Your task to perform on an android device: open app "eBay: The shopping marketplace" (install if not already installed) Image 0: 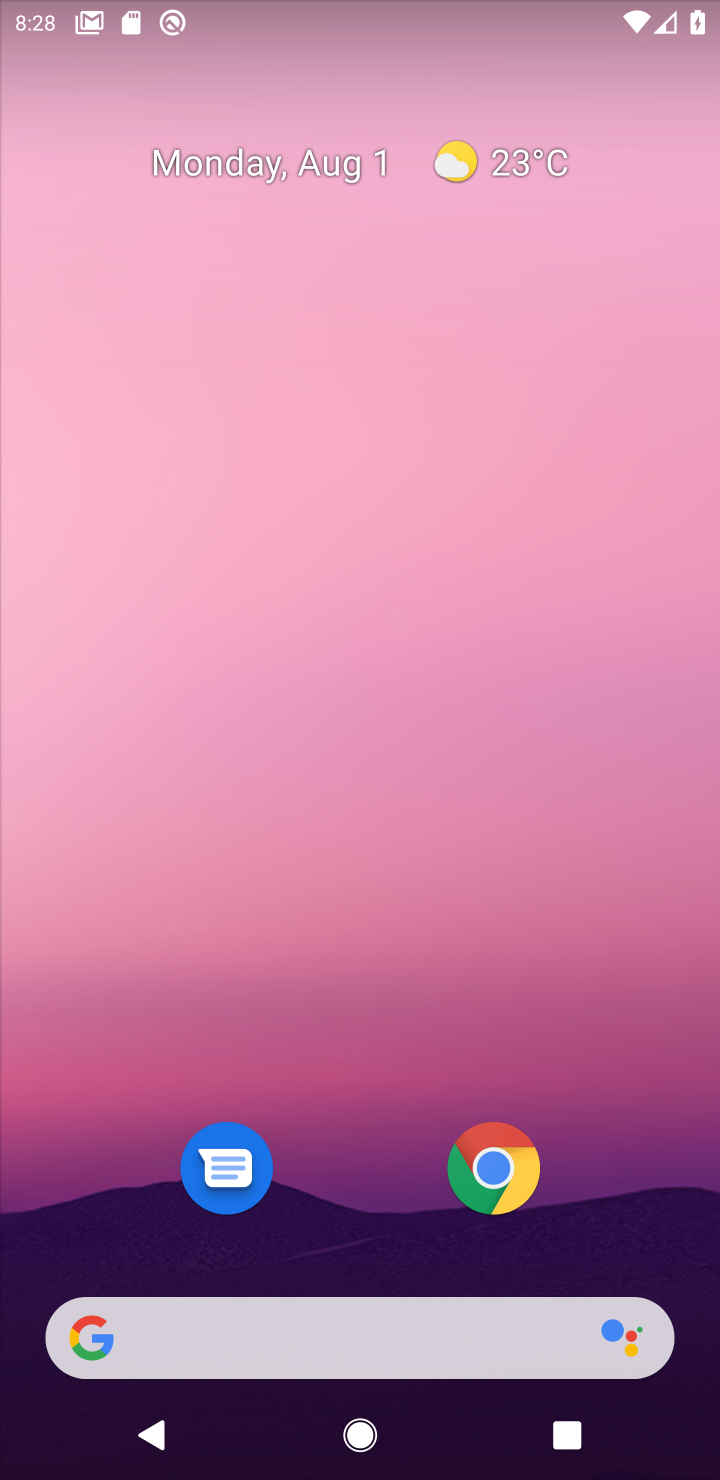
Step 0: click (370, 82)
Your task to perform on an android device: open app "eBay: The shopping marketplace" (install if not already installed) Image 1: 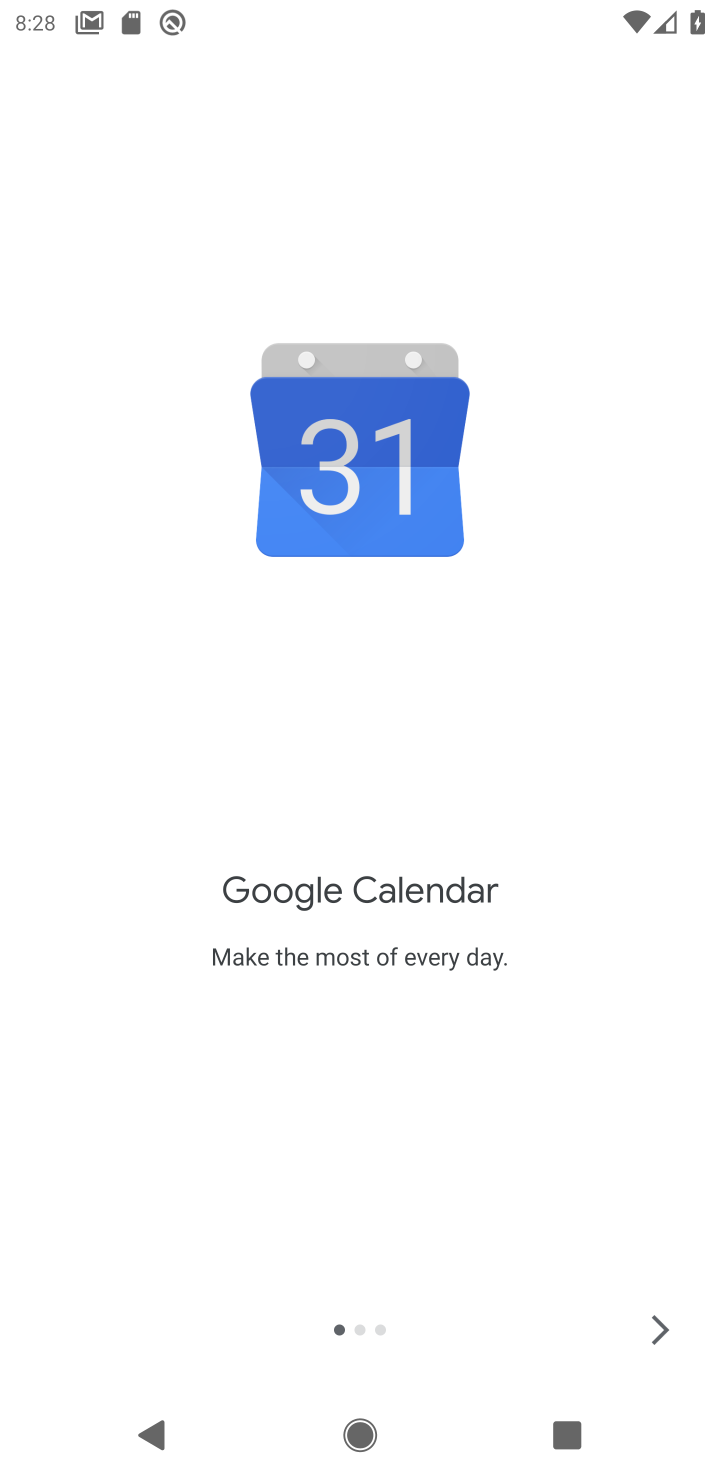
Step 1: press home button
Your task to perform on an android device: open app "eBay: The shopping marketplace" (install if not already installed) Image 2: 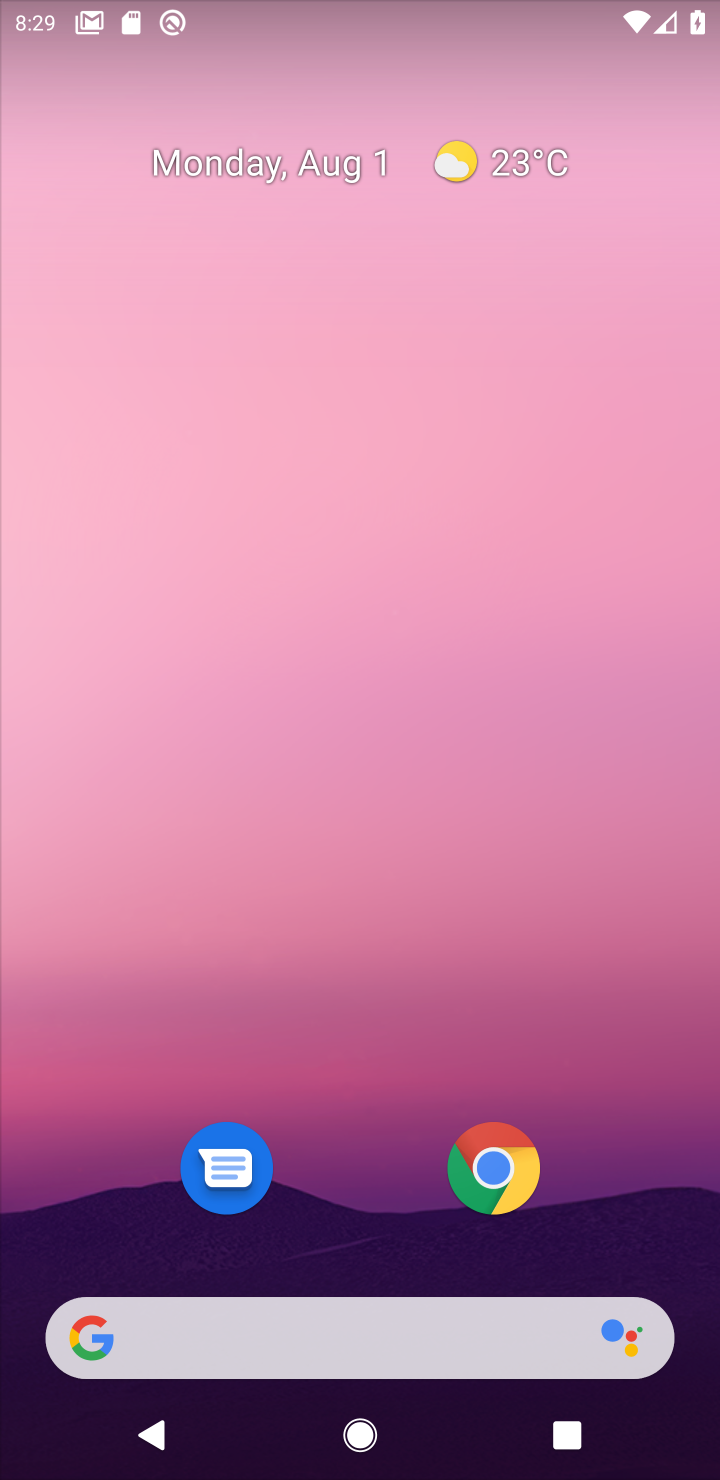
Step 2: drag from (332, 862) to (233, 1)
Your task to perform on an android device: open app "eBay: The shopping marketplace" (install if not already installed) Image 3: 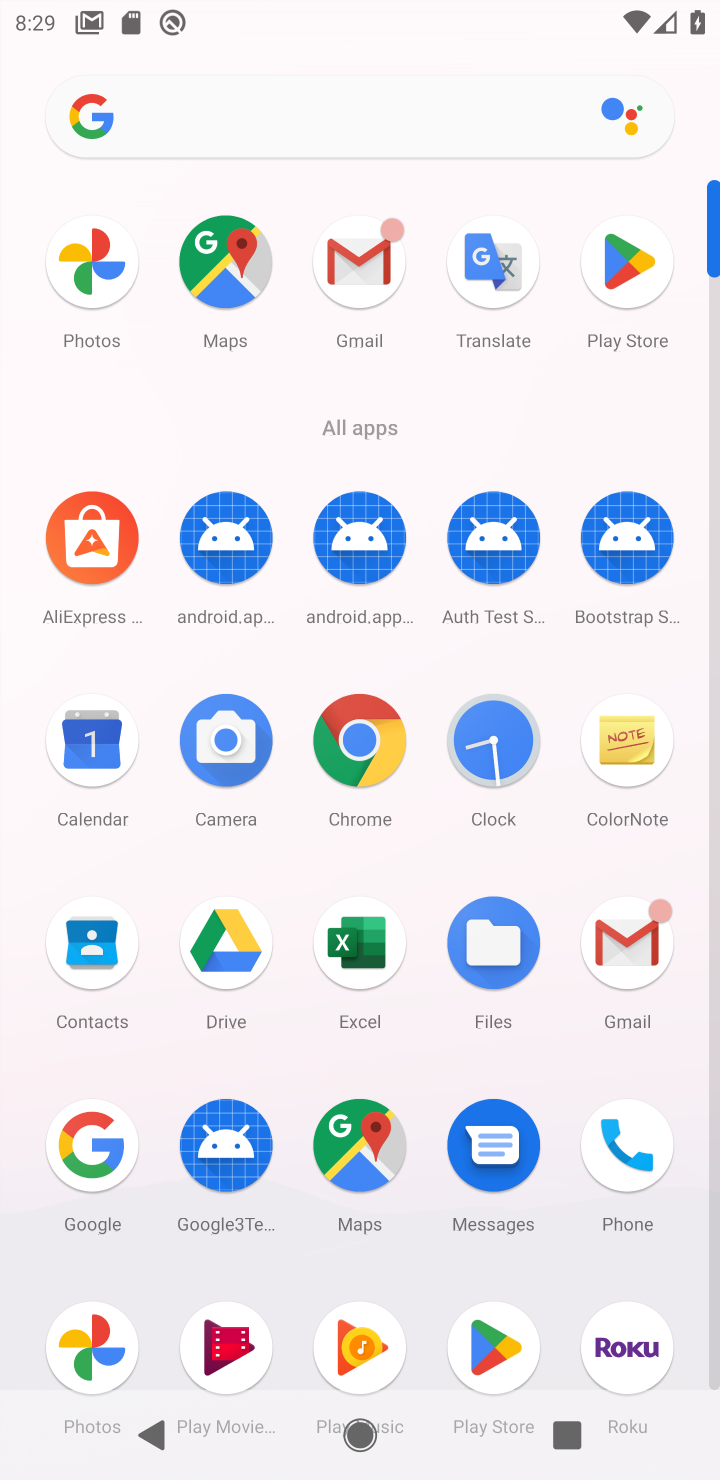
Step 3: click (616, 318)
Your task to perform on an android device: open app "eBay: The shopping marketplace" (install if not already installed) Image 4: 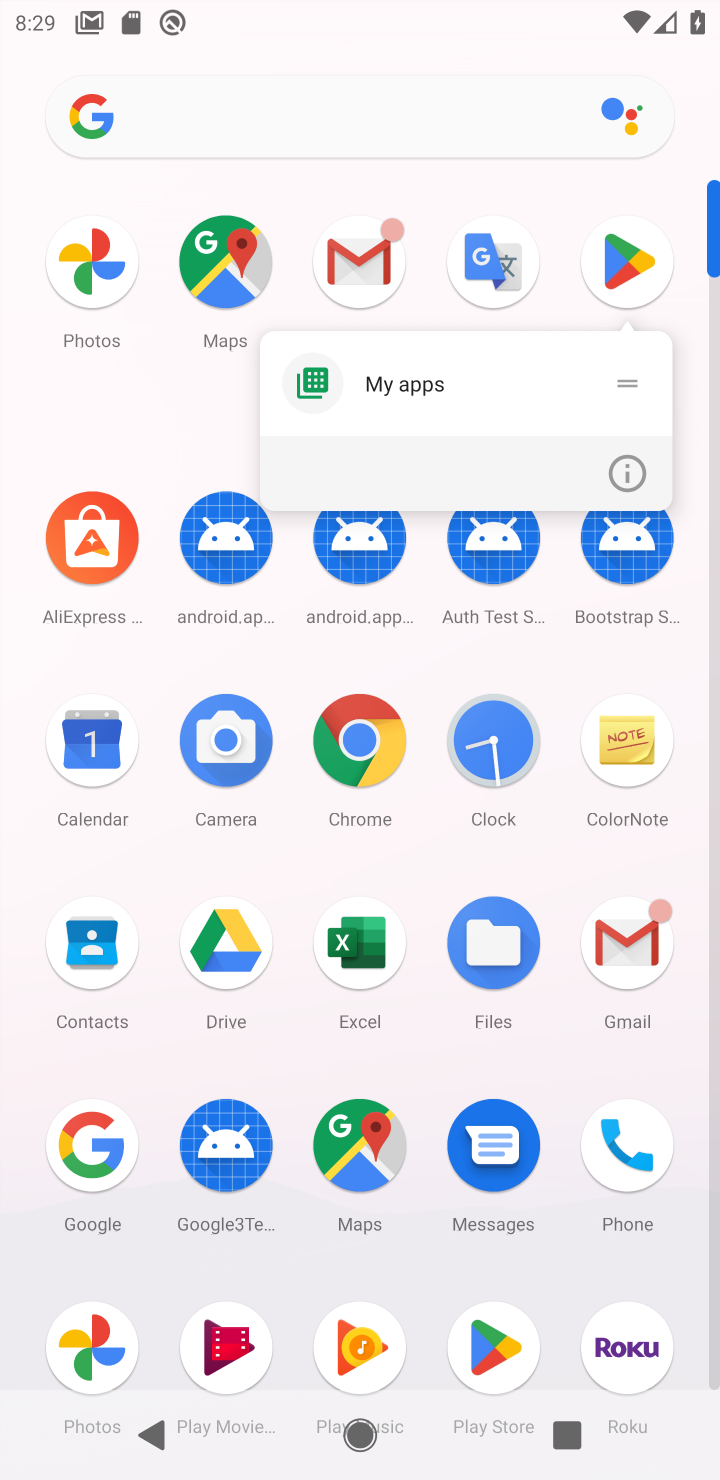
Step 4: click (624, 271)
Your task to perform on an android device: open app "eBay: The shopping marketplace" (install if not already installed) Image 5: 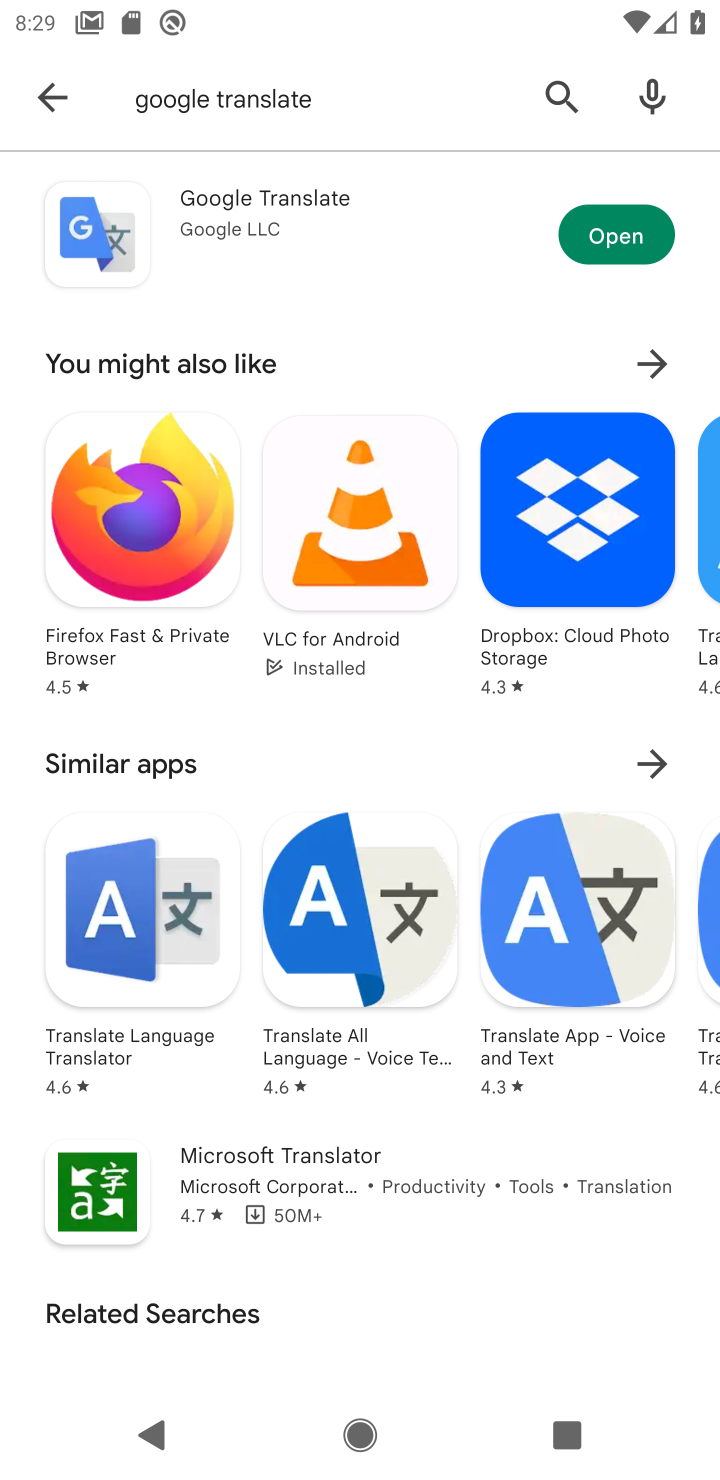
Step 5: click (307, 101)
Your task to perform on an android device: open app "eBay: The shopping marketplace" (install if not already installed) Image 6: 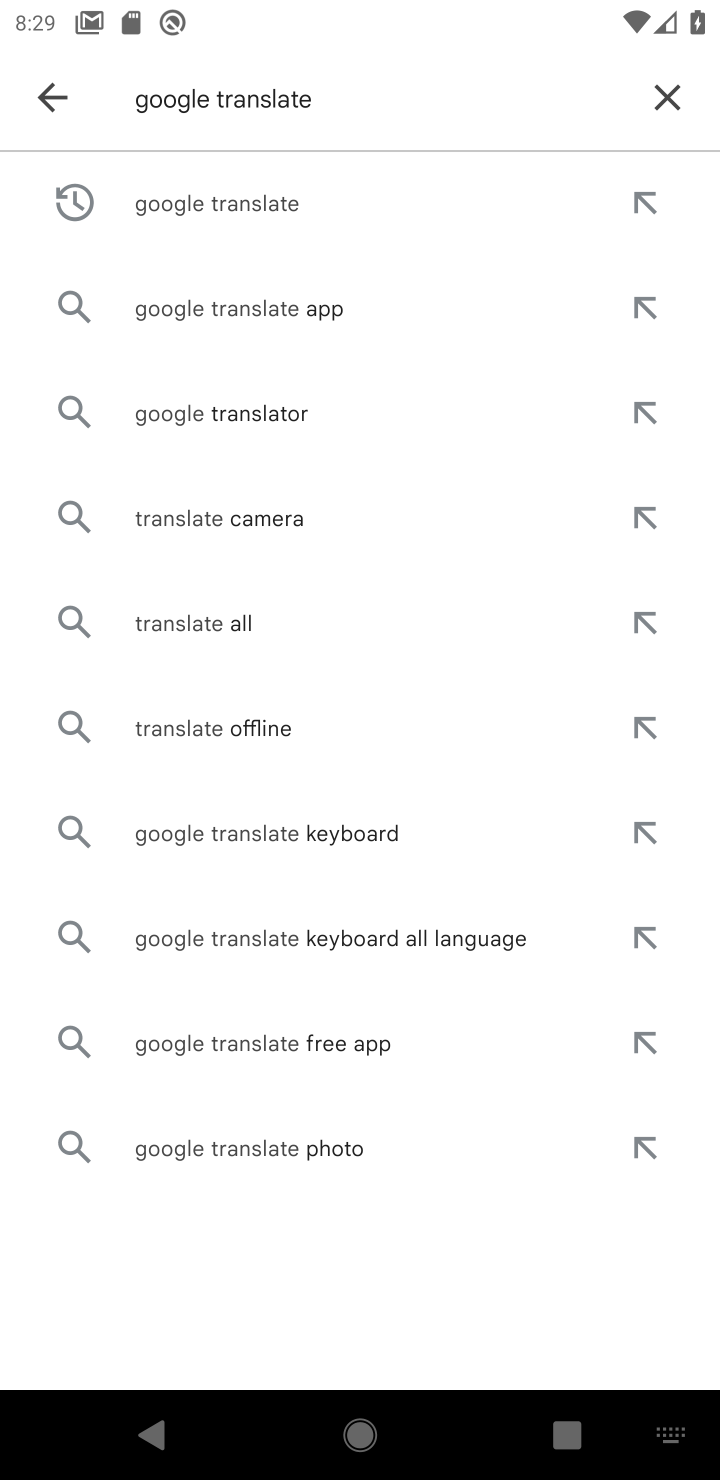
Step 6: click (673, 90)
Your task to perform on an android device: open app "eBay: The shopping marketplace" (install if not already installed) Image 7: 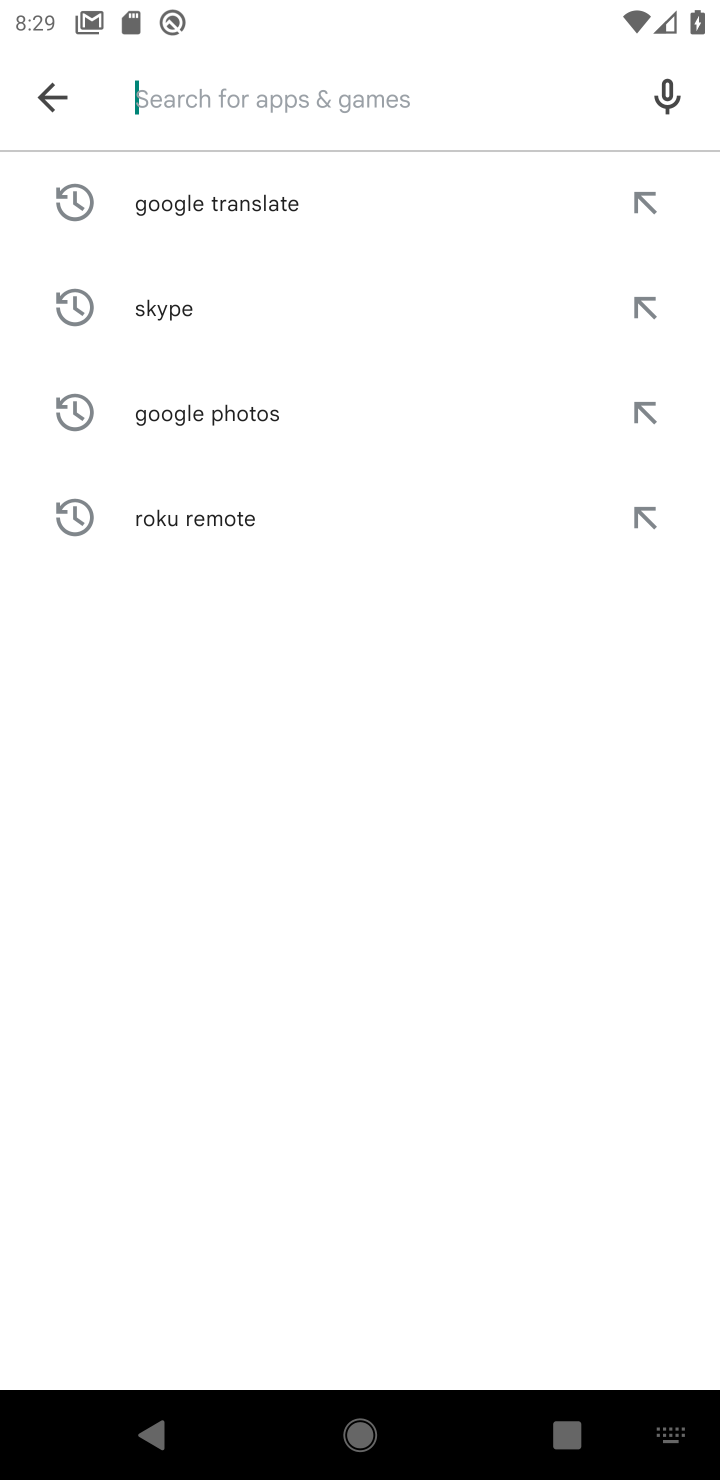
Step 7: type "EBay"
Your task to perform on an android device: open app "eBay: The shopping marketplace" (install if not already installed) Image 8: 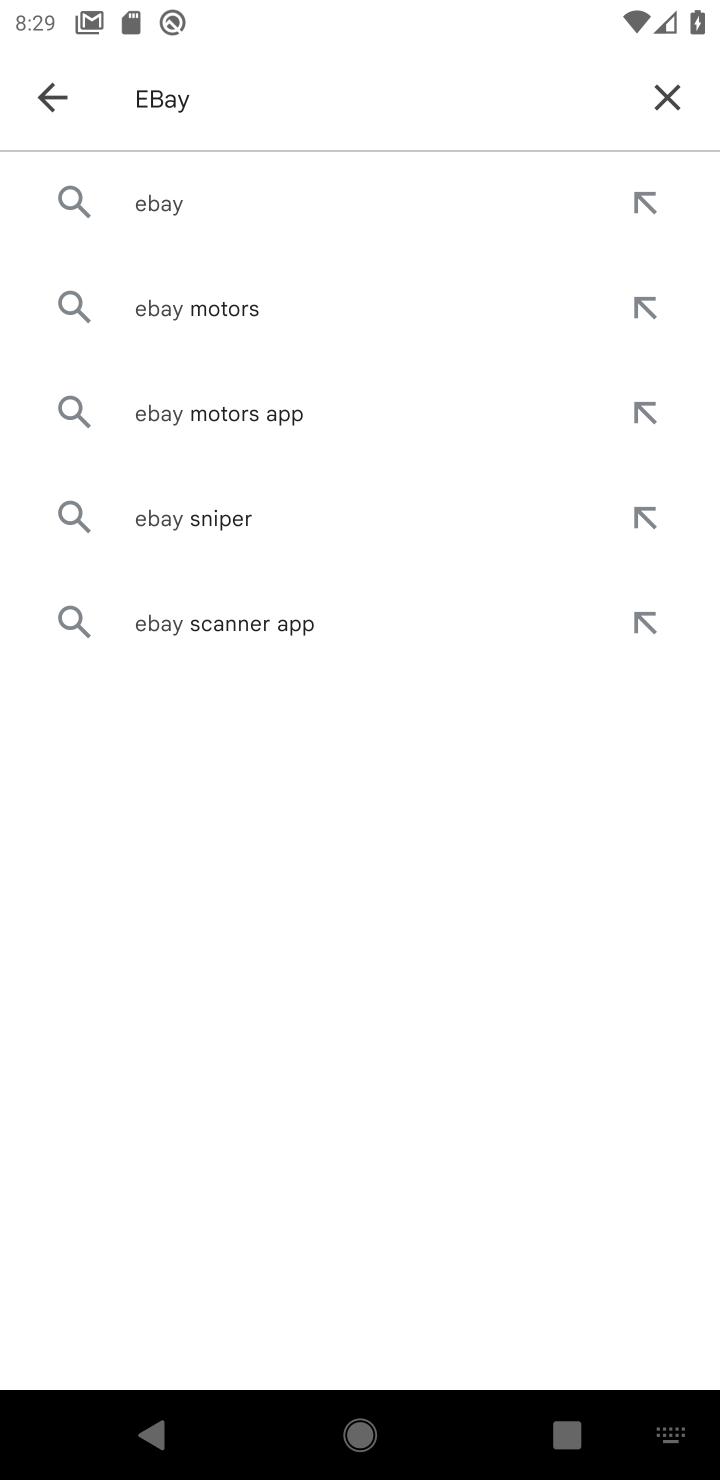
Step 8: click (201, 175)
Your task to perform on an android device: open app "eBay: The shopping marketplace" (install if not already installed) Image 9: 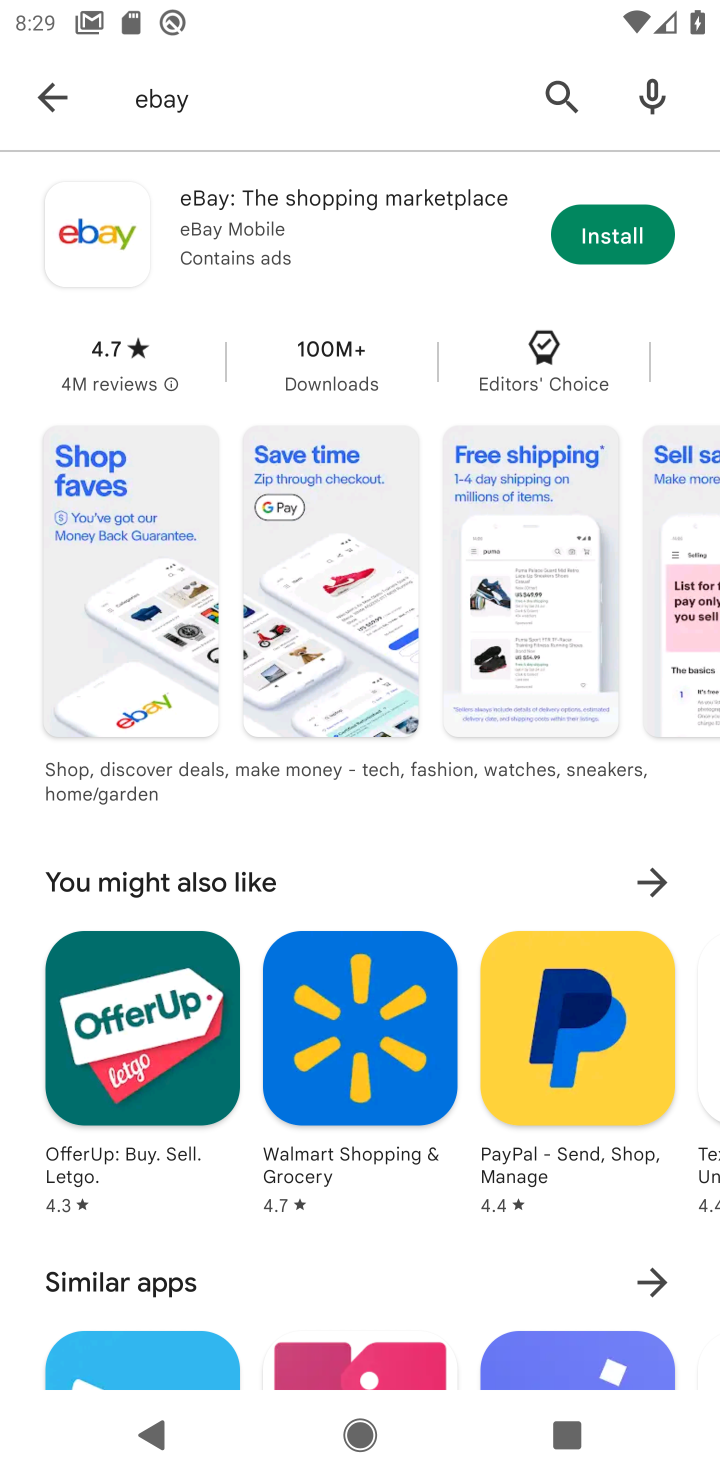
Step 9: click (644, 234)
Your task to perform on an android device: open app "eBay: The shopping marketplace" (install if not already installed) Image 10: 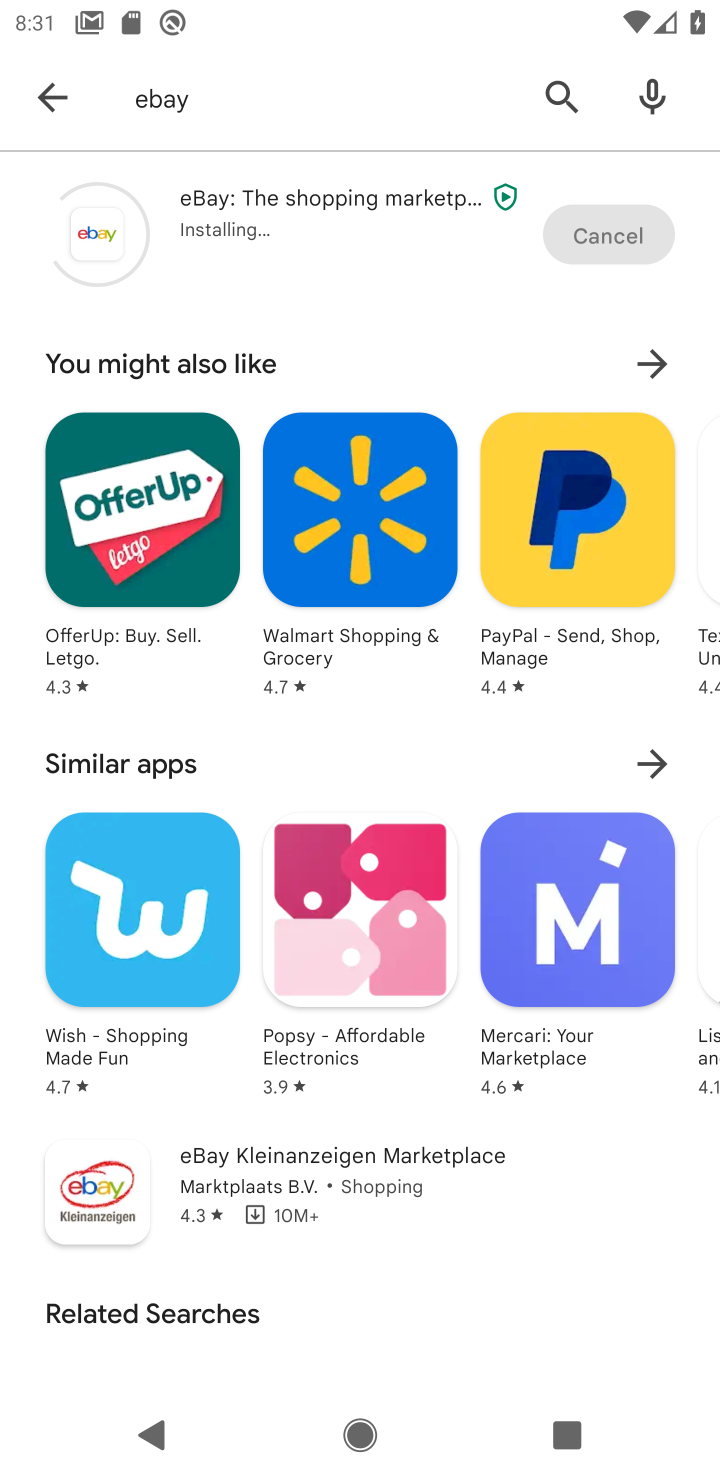
Step 10: click (491, 1013)
Your task to perform on an android device: open app "eBay: The shopping marketplace" (install if not already installed) Image 11: 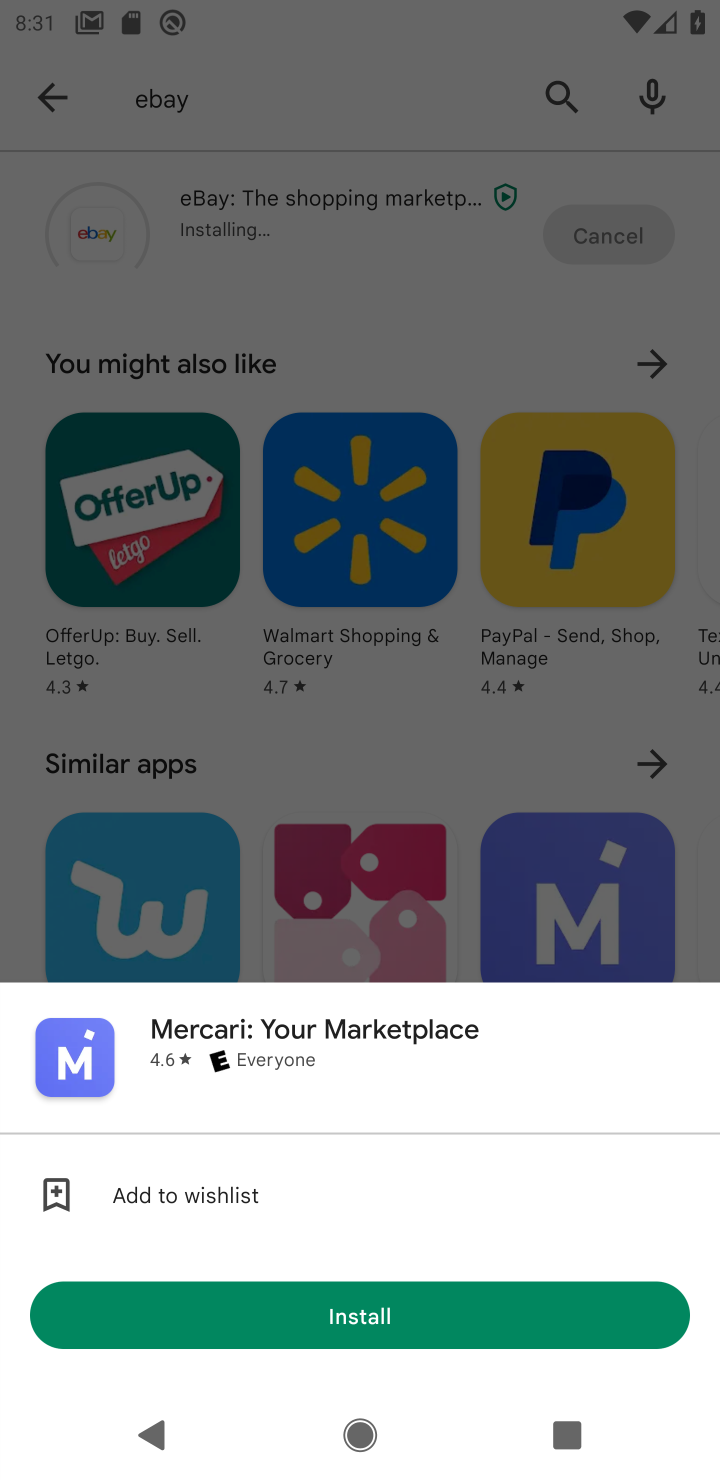
Step 11: click (436, 320)
Your task to perform on an android device: open app "eBay: The shopping marketplace" (install if not already installed) Image 12: 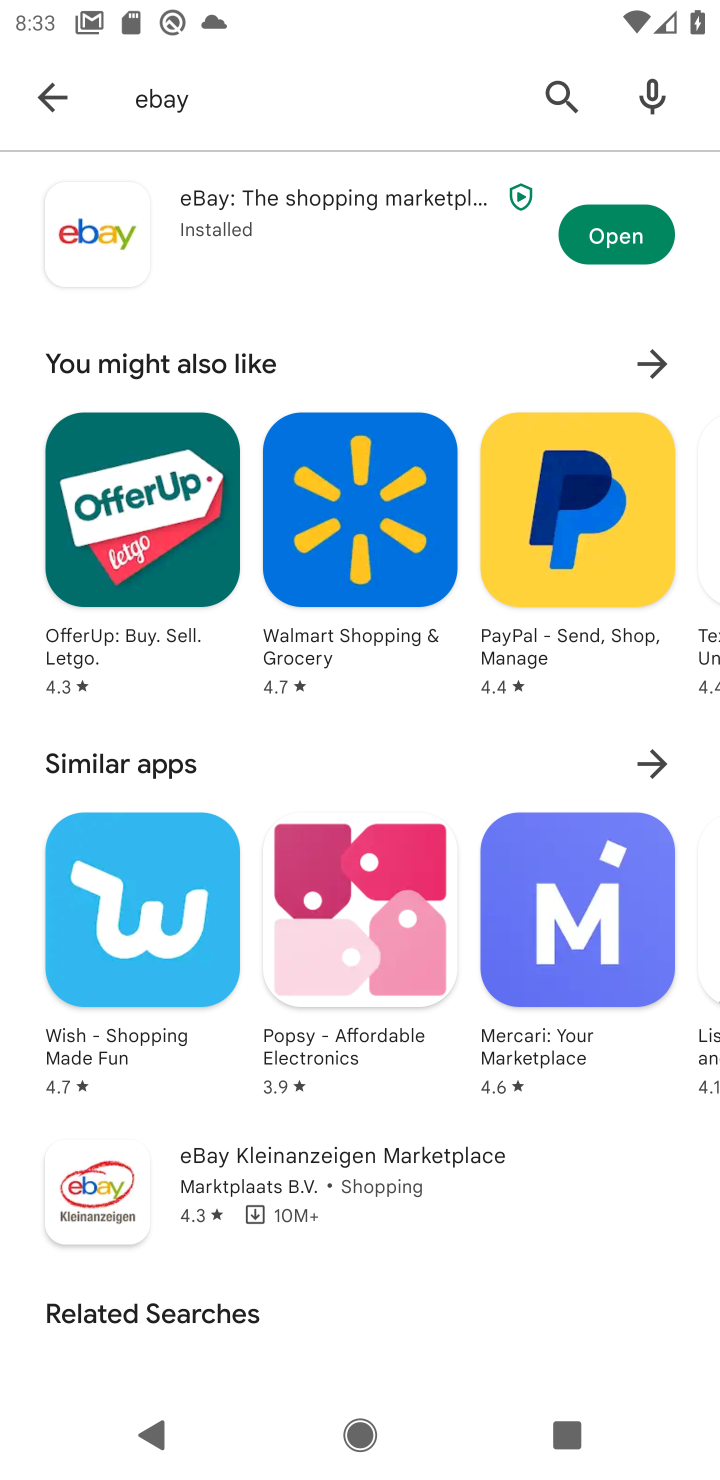
Step 12: click (603, 229)
Your task to perform on an android device: open app "eBay: The shopping marketplace" (install if not already installed) Image 13: 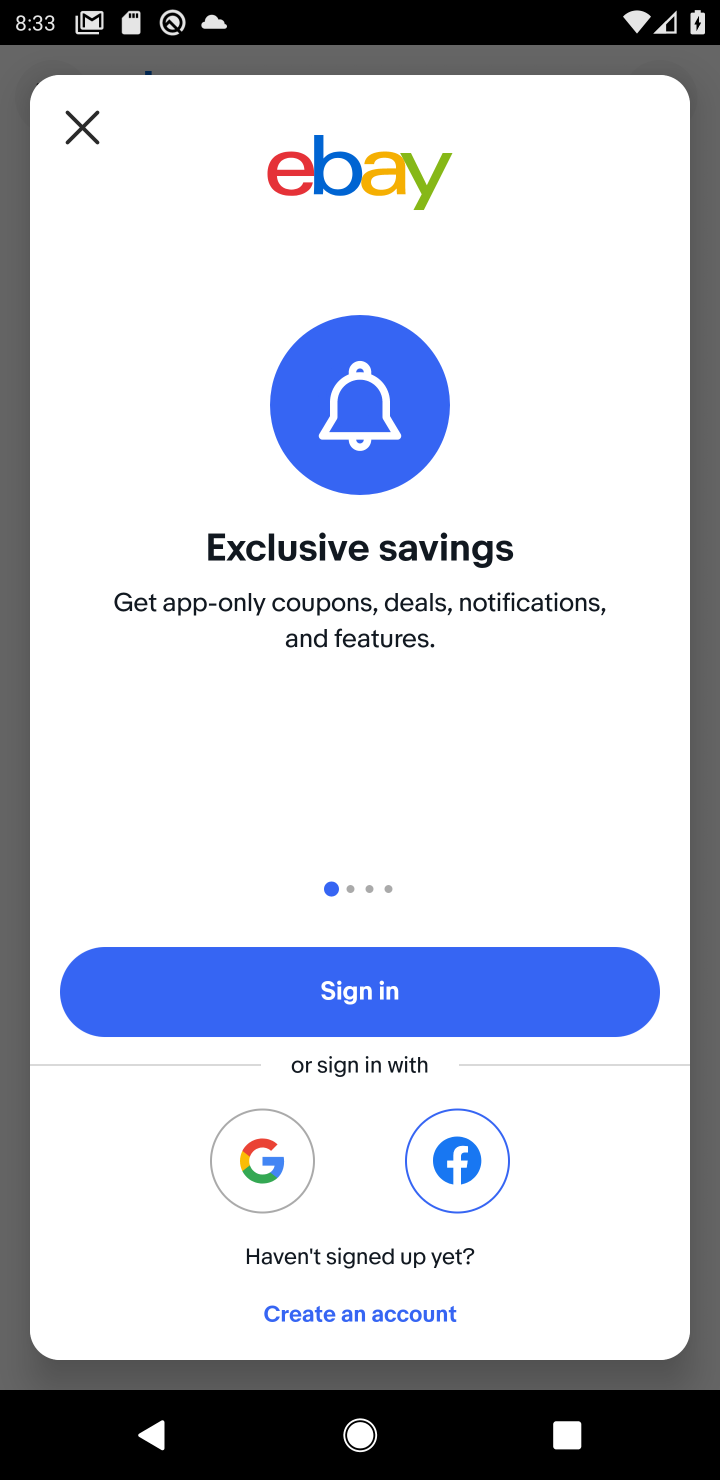
Step 13: click (256, 1151)
Your task to perform on an android device: open app "eBay: The shopping marketplace" (install if not already installed) Image 14: 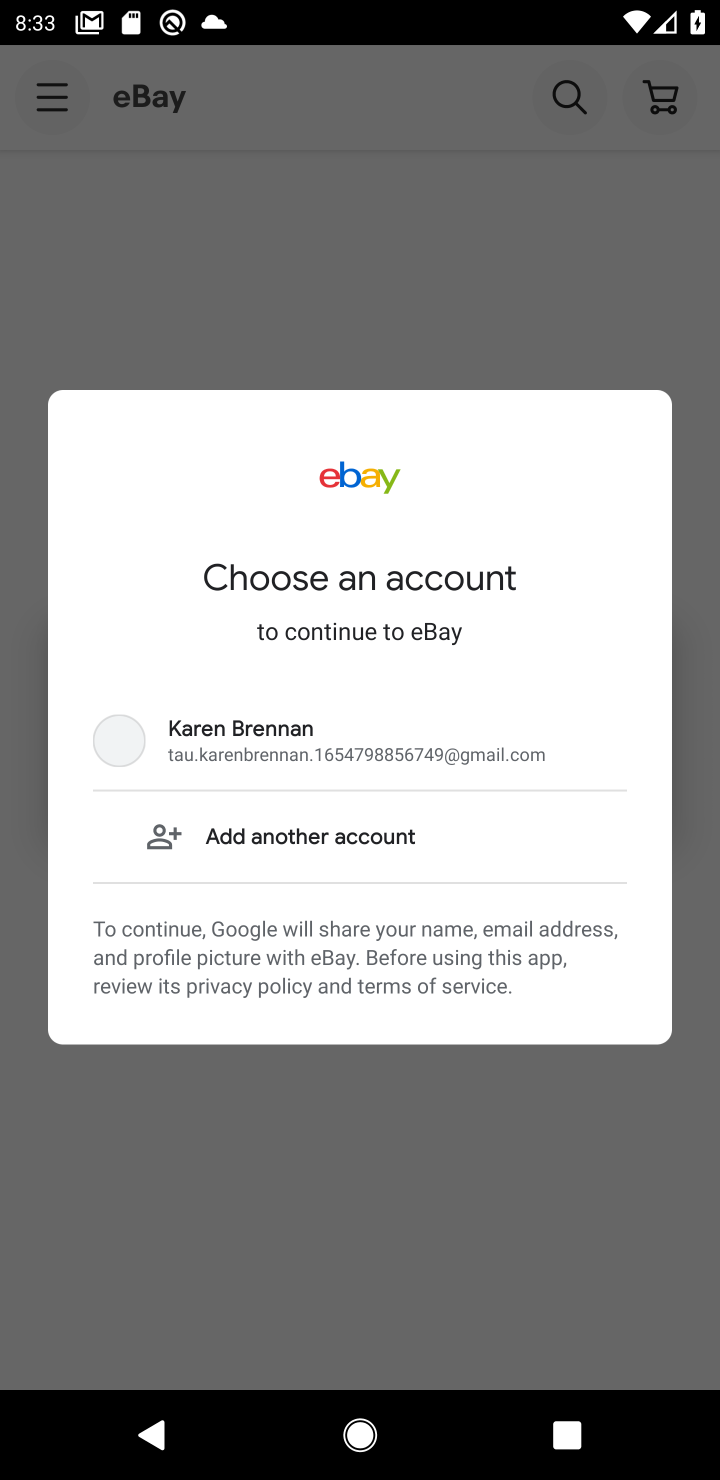
Step 14: click (347, 751)
Your task to perform on an android device: open app "eBay: The shopping marketplace" (install if not already installed) Image 15: 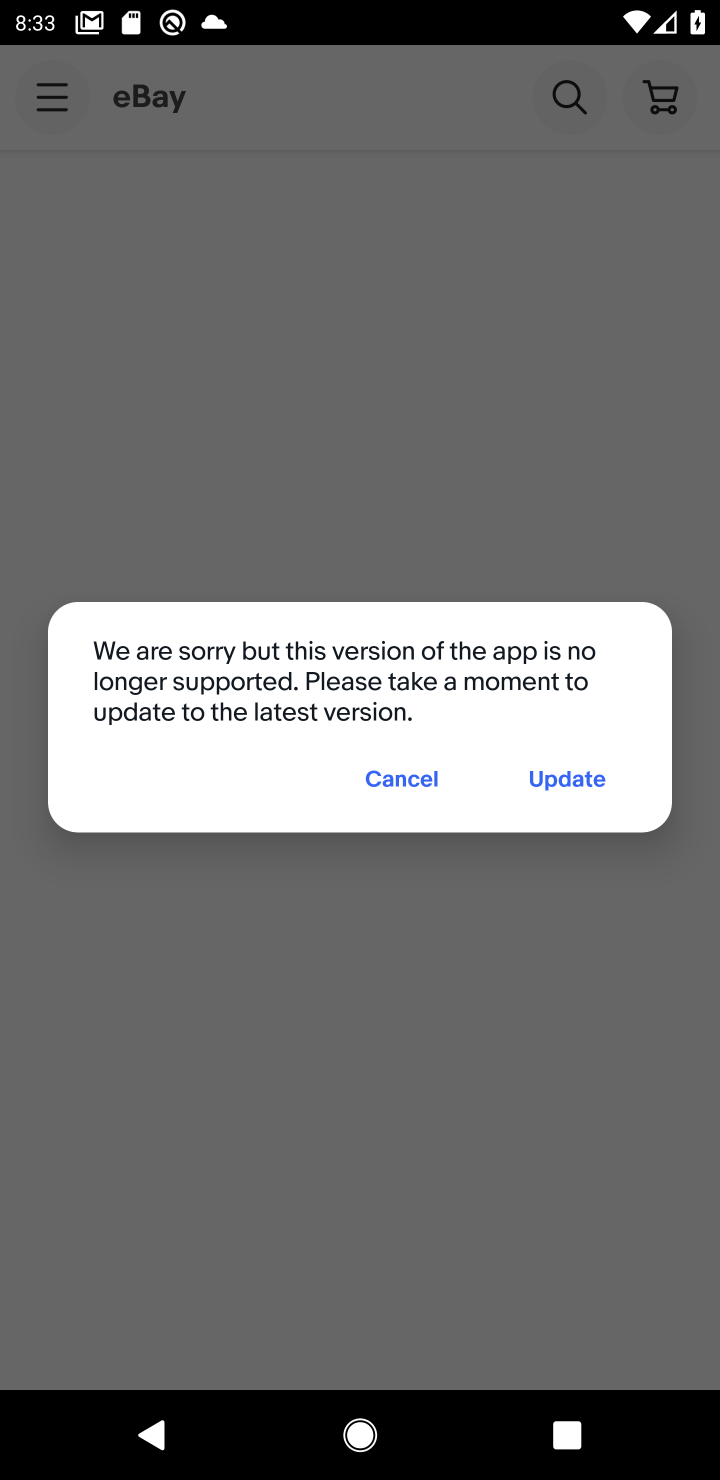
Step 15: click (404, 779)
Your task to perform on an android device: open app "eBay: The shopping marketplace" (install if not already installed) Image 16: 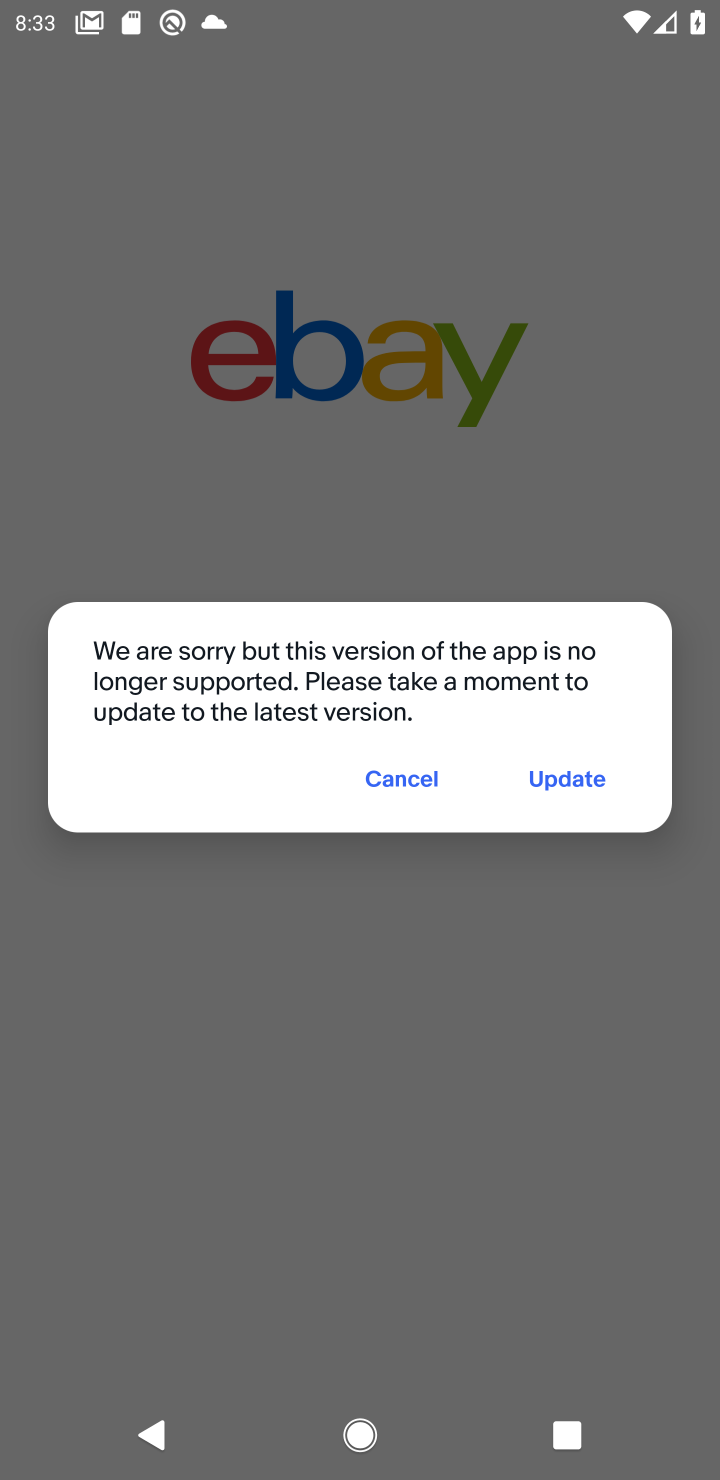
Step 16: click (394, 768)
Your task to perform on an android device: open app "eBay: The shopping marketplace" (install if not already installed) Image 17: 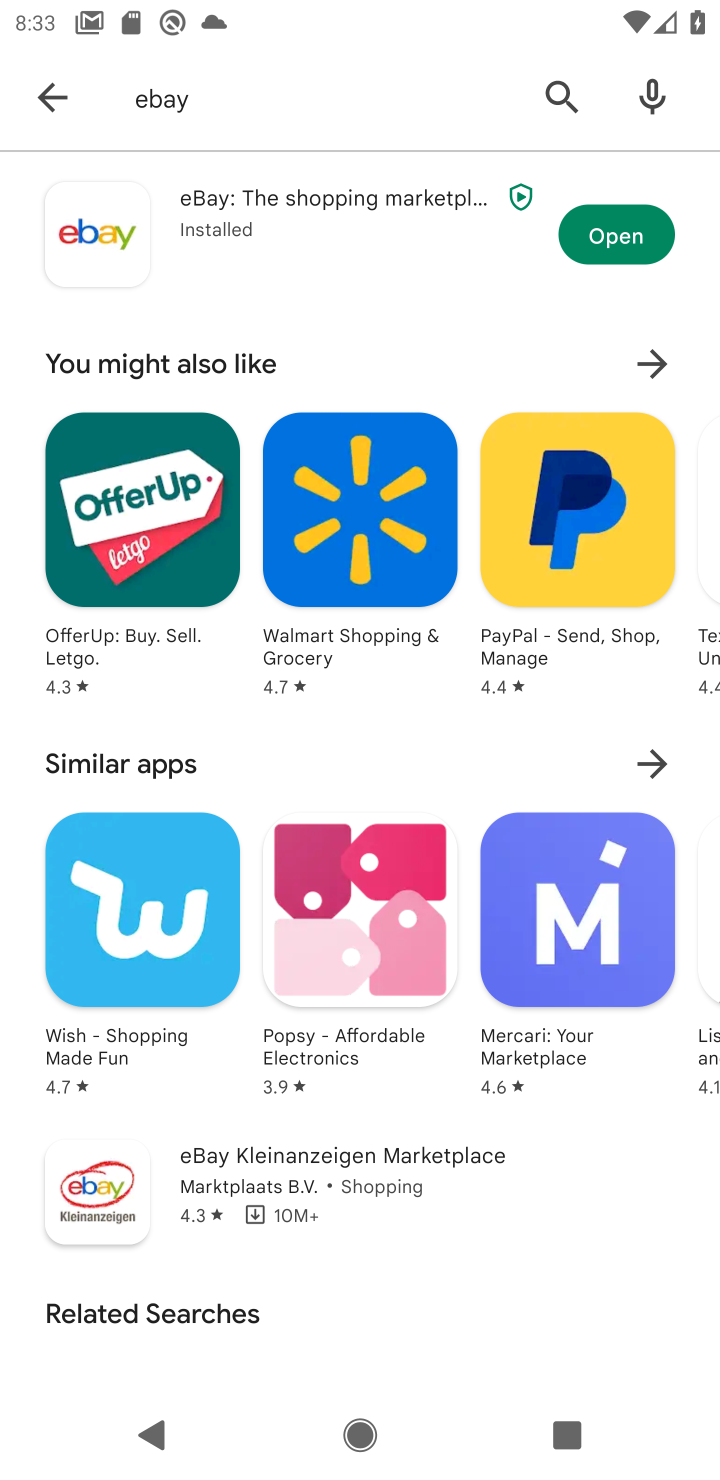
Step 17: task complete